Your task to perform on an android device: Toggle the flashlight Image 0: 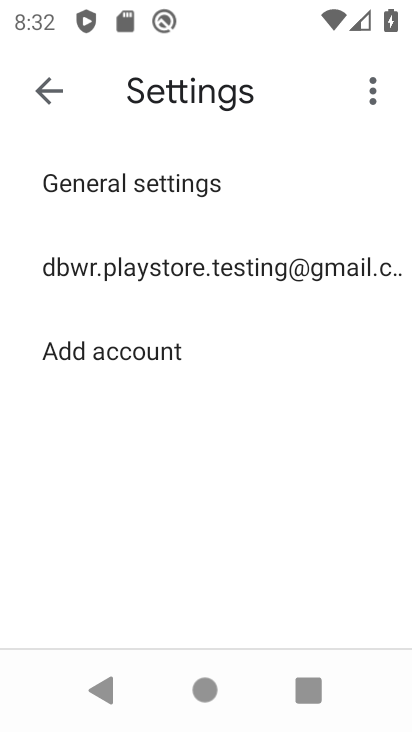
Step 0: press home button
Your task to perform on an android device: Toggle the flashlight Image 1: 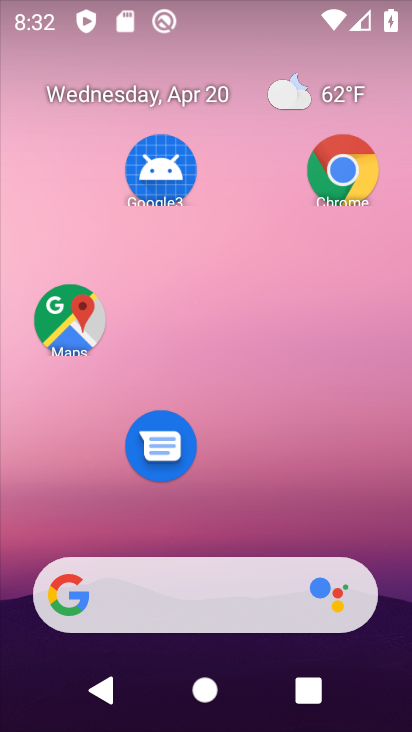
Step 1: drag from (310, 483) to (214, 0)
Your task to perform on an android device: Toggle the flashlight Image 2: 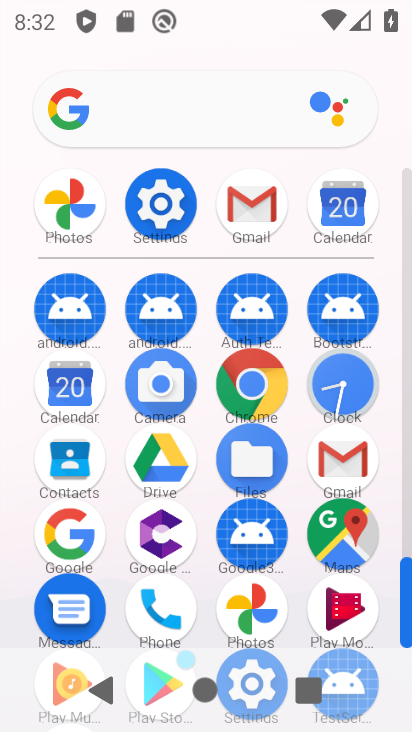
Step 2: click (154, 253)
Your task to perform on an android device: Toggle the flashlight Image 3: 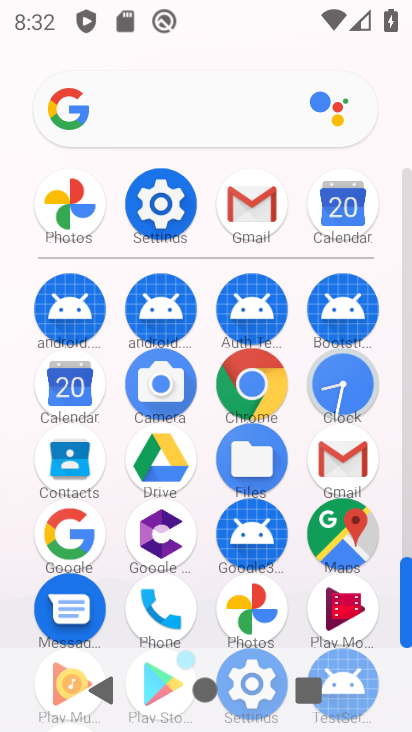
Step 3: click (158, 204)
Your task to perform on an android device: Toggle the flashlight Image 4: 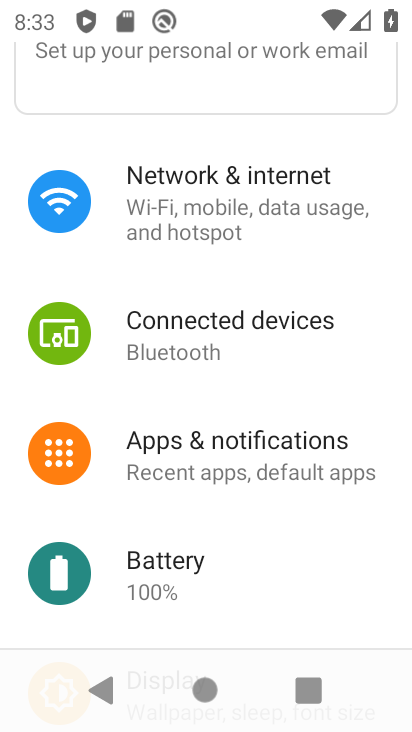
Step 4: task complete